Your task to perform on an android device: Open Amazon Image 0: 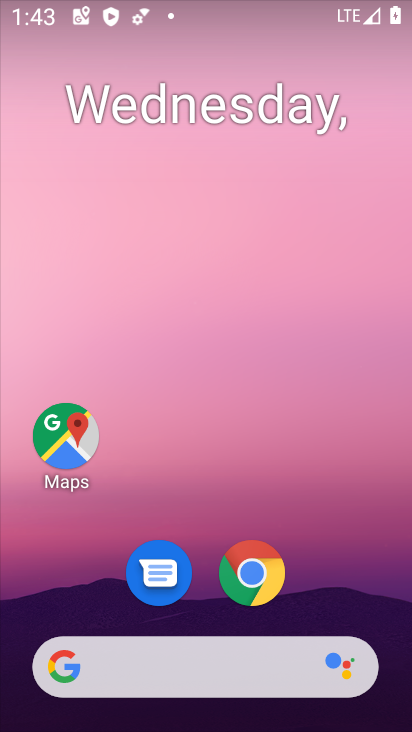
Step 0: click (256, 575)
Your task to perform on an android device: Open Amazon Image 1: 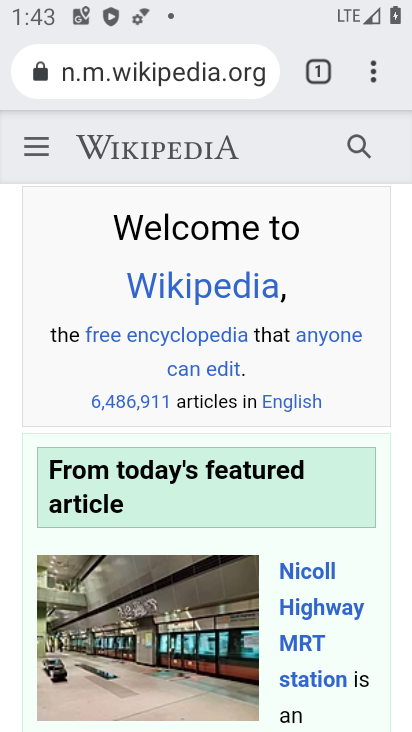
Step 1: press back button
Your task to perform on an android device: Open Amazon Image 2: 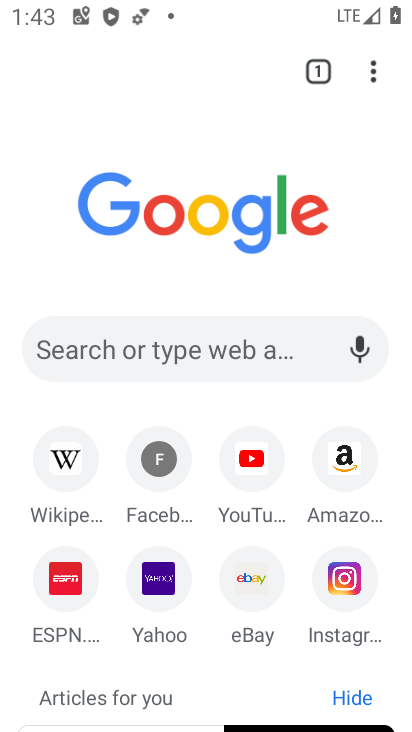
Step 2: click (345, 461)
Your task to perform on an android device: Open Amazon Image 3: 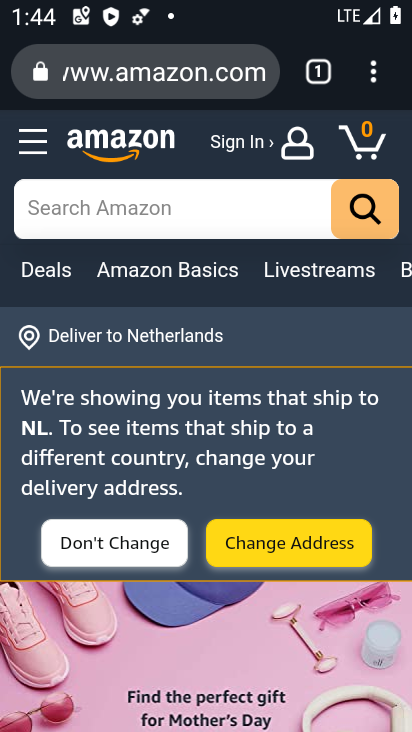
Step 3: task complete